Your task to perform on an android device: toggle translation in the chrome app Image 0: 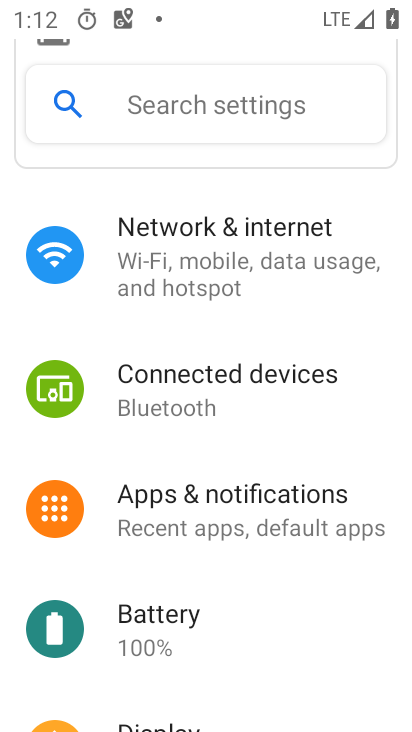
Step 0: press home button
Your task to perform on an android device: toggle translation in the chrome app Image 1: 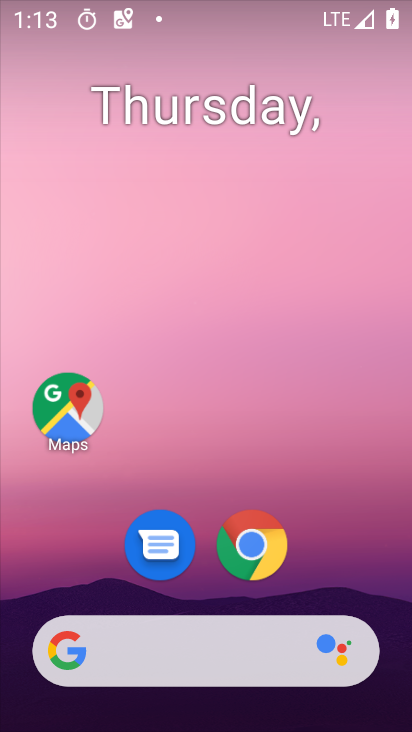
Step 1: drag from (300, 524) to (351, 0)
Your task to perform on an android device: toggle translation in the chrome app Image 2: 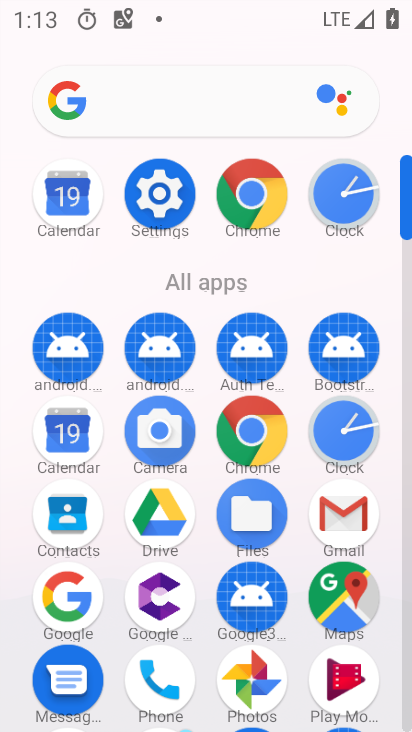
Step 2: click (245, 432)
Your task to perform on an android device: toggle translation in the chrome app Image 3: 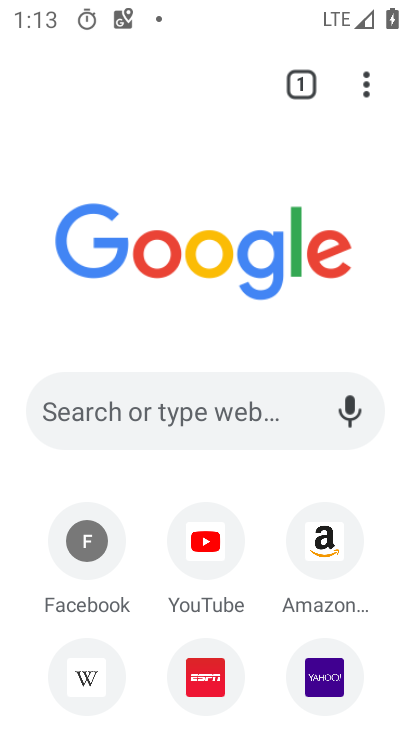
Step 3: click (366, 80)
Your task to perform on an android device: toggle translation in the chrome app Image 4: 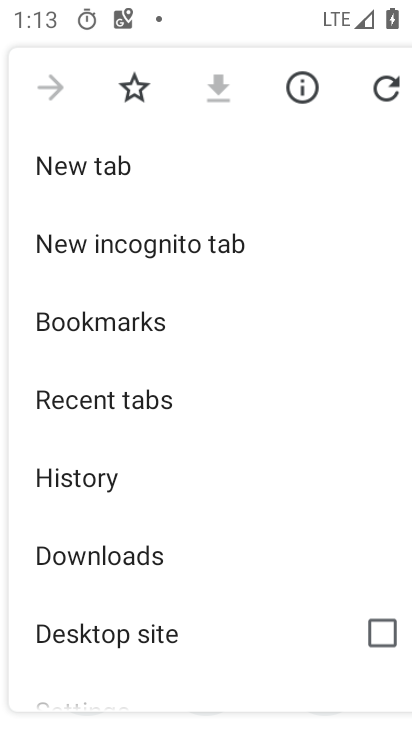
Step 4: drag from (172, 586) to (182, 164)
Your task to perform on an android device: toggle translation in the chrome app Image 5: 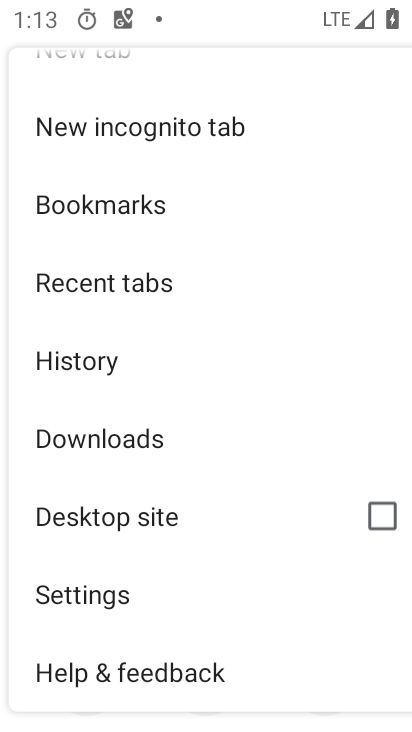
Step 5: click (137, 602)
Your task to perform on an android device: toggle translation in the chrome app Image 6: 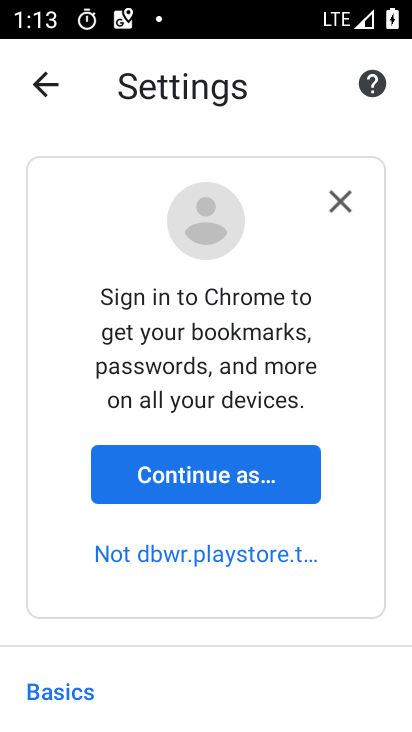
Step 6: drag from (266, 690) to (298, 123)
Your task to perform on an android device: toggle translation in the chrome app Image 7: 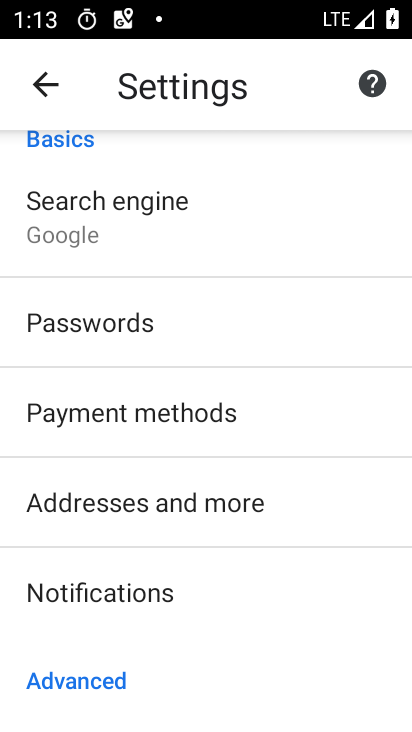
Step 7: drag from (206, 703) to (223, 265)
Your task to perform on an android device: toggle translation in the chrome app Image 8: 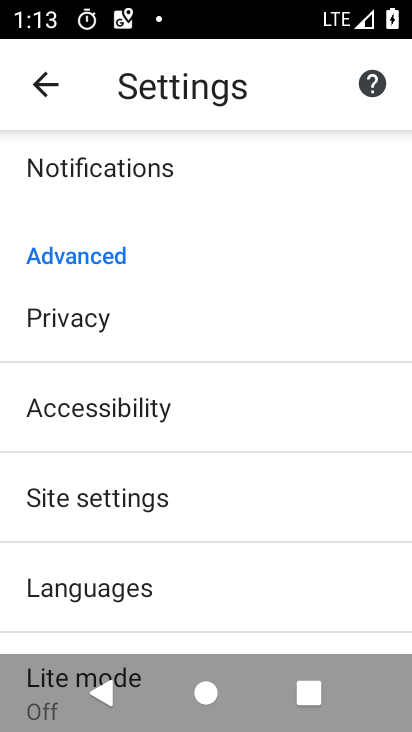
Step 8: drag from (128, 654) to (119, 268)
Your task to perform on an android device: toggle translation in the chrome app Image 9: 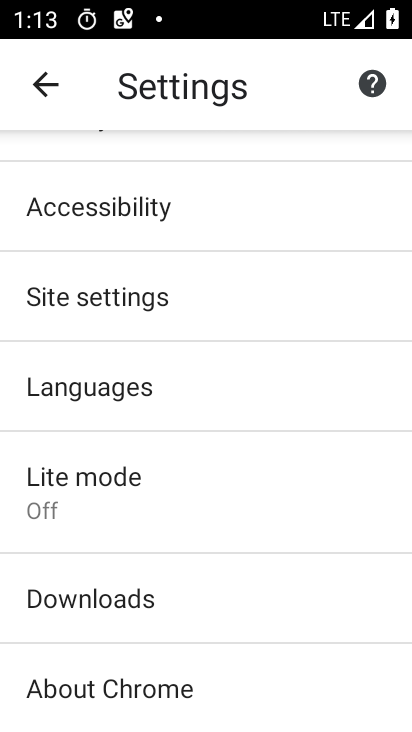
Step 9: click (121, 378)
Your task to perform on an android device: toggle translation in the chrome app Image 10: 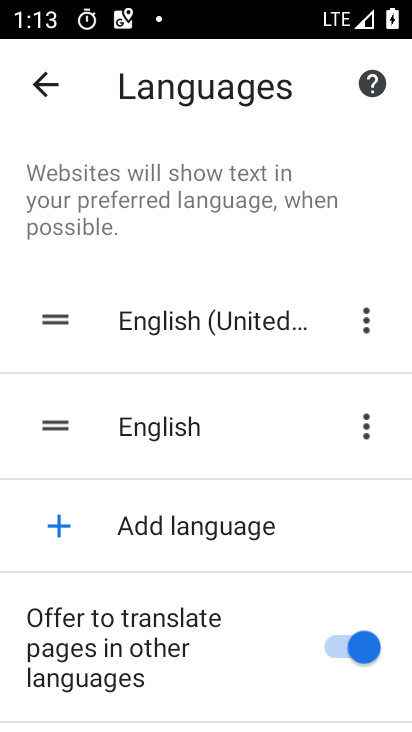
Step 10: click (345, 650)
Your task to perform on an android device: toggle translation in the chrome app Image 11: 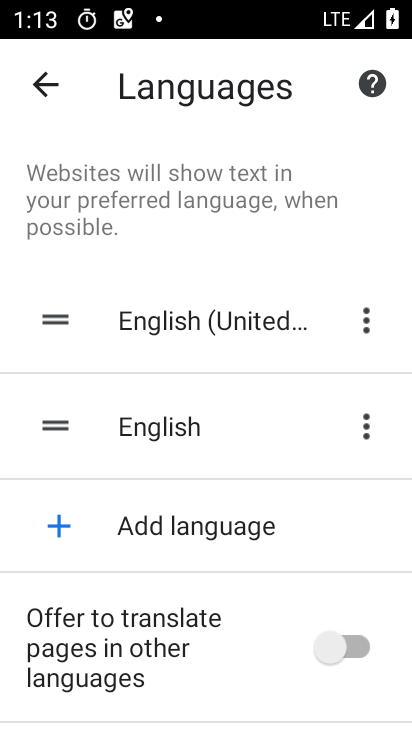
Step 11: task complete